Your task to perform on an android device: manage bookmarks in the chrome app Image 0: 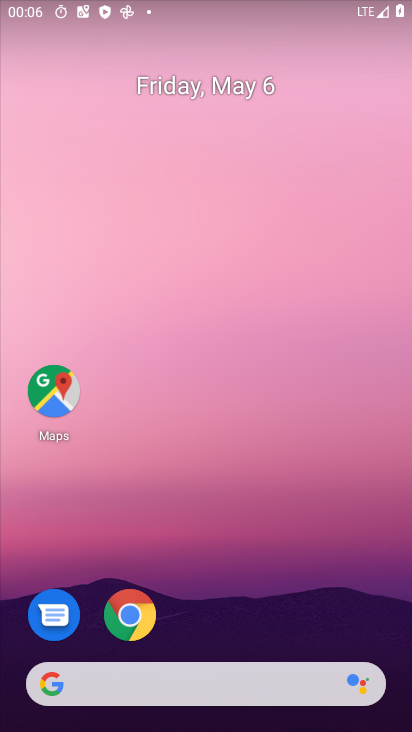
Step 0: click (134, 612)
Your task to perform on an android device: manage bookmarks in the chrome app Image 1: 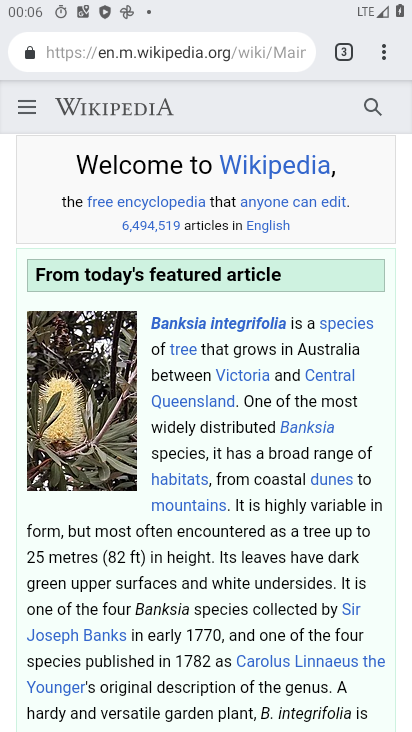
Step 1: click (375, 52)
Your task to perform on an android device: manage bookmarks in the chrome app Image 2: 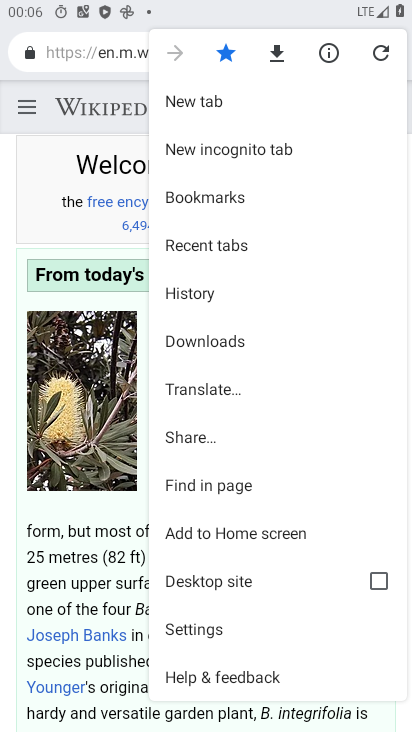
Step 2: click (240, 201)
Your task to perform on an android device: manage bookmarks in the chrome app Image 3: 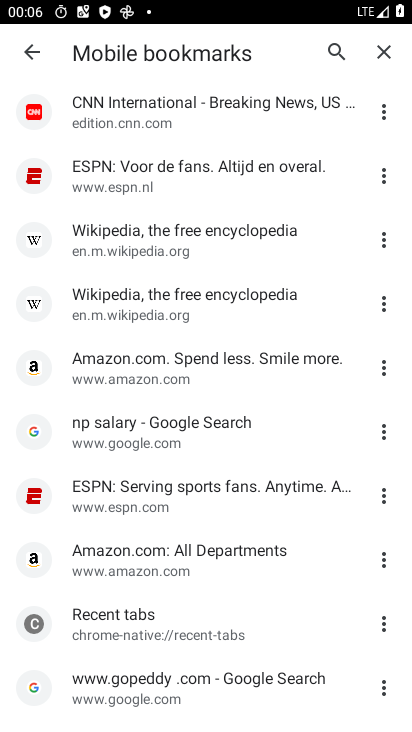
Step 3: click (379, 176)
Your task to perform on an android device: manage bookmarks in the chrome app Image 4: 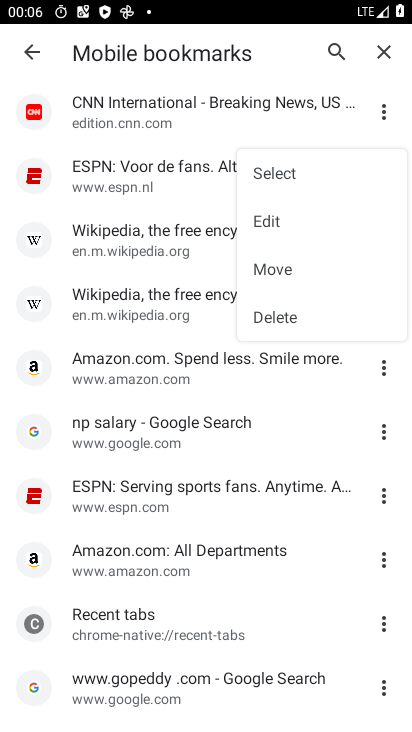
Step 4: click (308, 312)
Your task to perform on an android device: manage bookmarks in the chrome app Image 5: 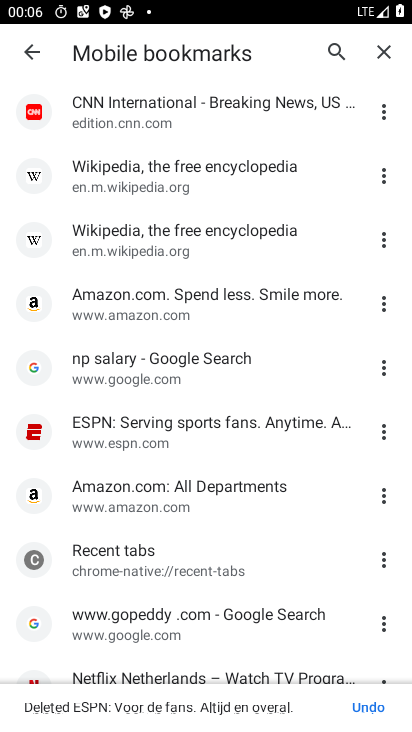
Step 5: task complete